Your task to perform on an android device: open wifi settings Image 0: 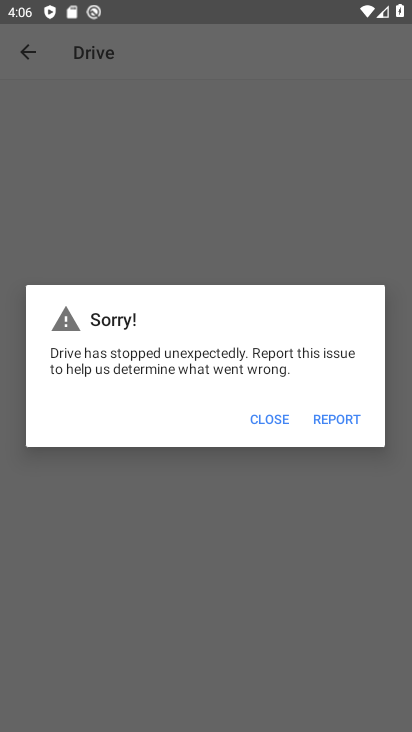
Step 0: press home button
Your task to perform on an android device: open wifi settings Image 1: 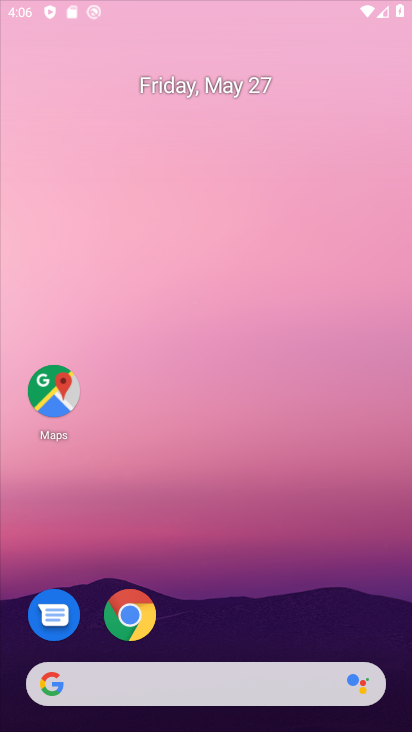
Step 1: drag from (282, 510) to (127, 7)
Your task to perform on an android device: open wifi settings Image 2: 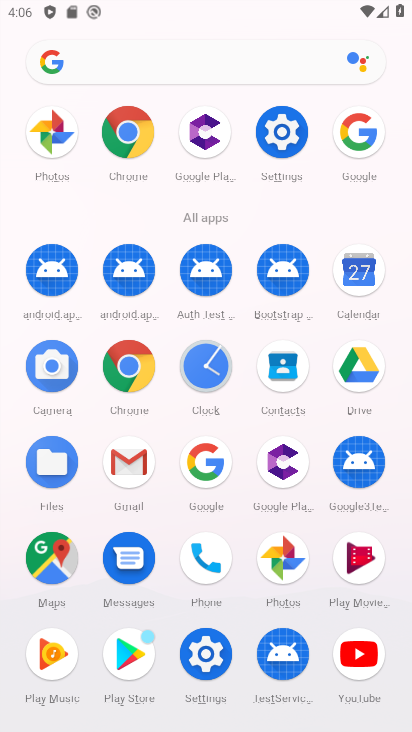
Step 2: click (283, 137)
Your task to perform on an android device: open wifi settings Image 3: 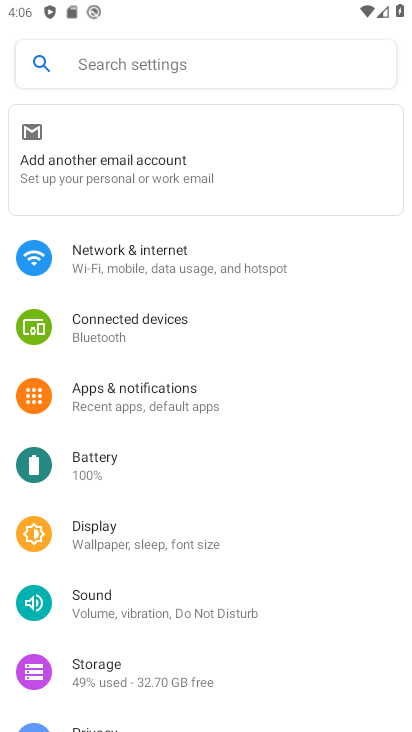
Step 3: click (157, 144)
Your task to perform on an android device: open wifi settings Image 4: 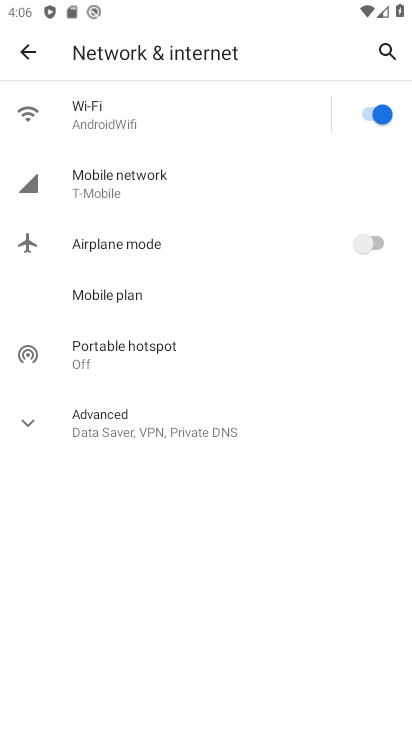
Step 4: click (154, 119)
Your task to perform on an android device: open wifi settings Image 5: 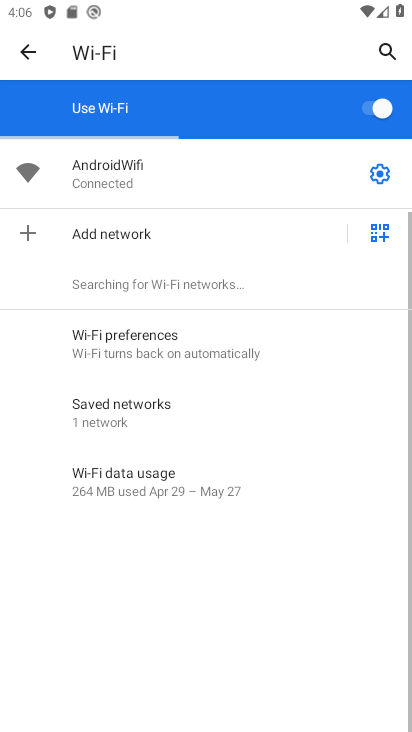
Step 5: task complete